Your task to perform on an android device: Open wifi settings Image 0: 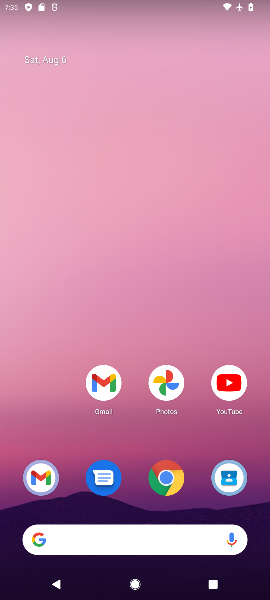
Step 0: press home button
Your task to perform on an android device: Open wifi settings Image 1: 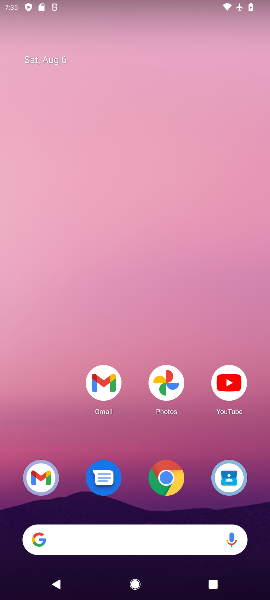
Step 1: drag from (50, 410) to (66, 19)
Your task to perform on an android device: Open wifi settings Image 2: 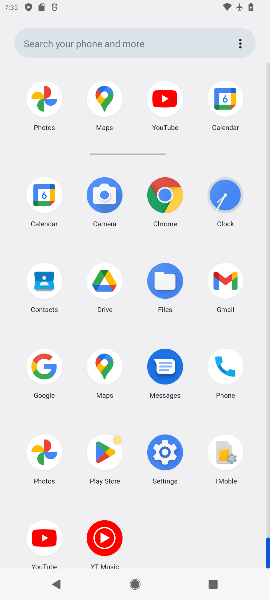
Step 2: click (153, 446)
Your task to perform on an android device: Open wifi settings Image 3: 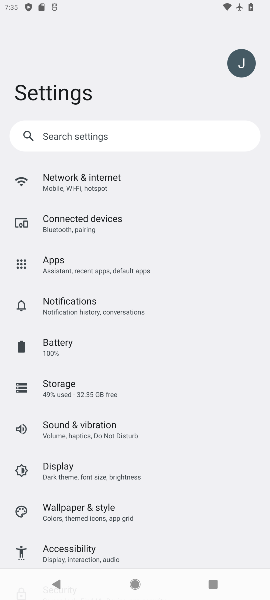
Step 3: click (81, 180)
Your task to perform on an android device: Open wifi settings Image 4: 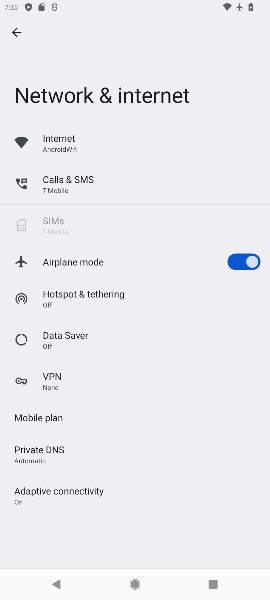
Step 4: click (71, 147)
Your task to perform on an android device: Open wifi settings Image 5: 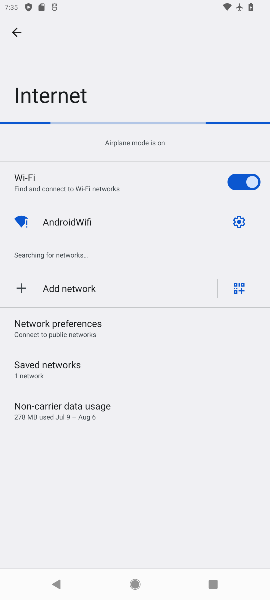
Step 5: click (71, 174)
Your task to perform on an android device: Open wifi settings Image 6: 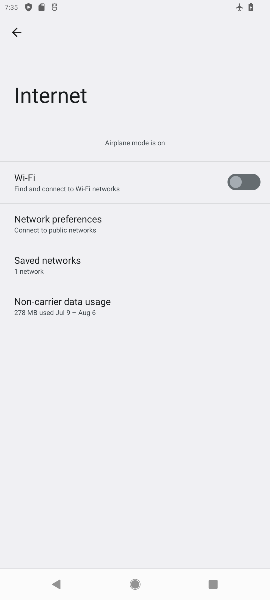
Step 6: task complete